Your task to perform on an android device: Go to Google maps Image 0: 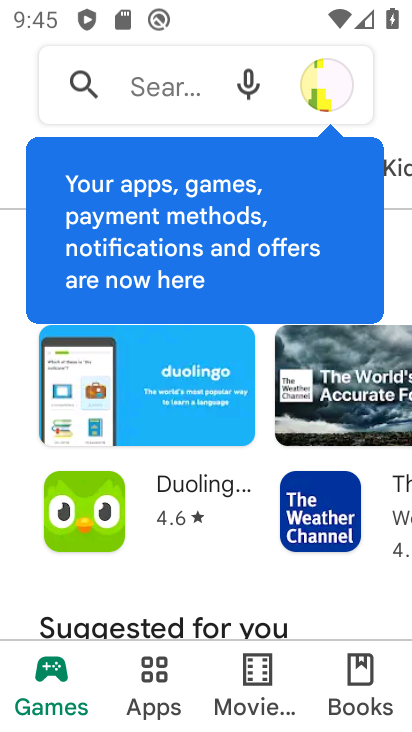
Step 0: press home button
Your task to perform on an android device: Go to Google maps Image 1: 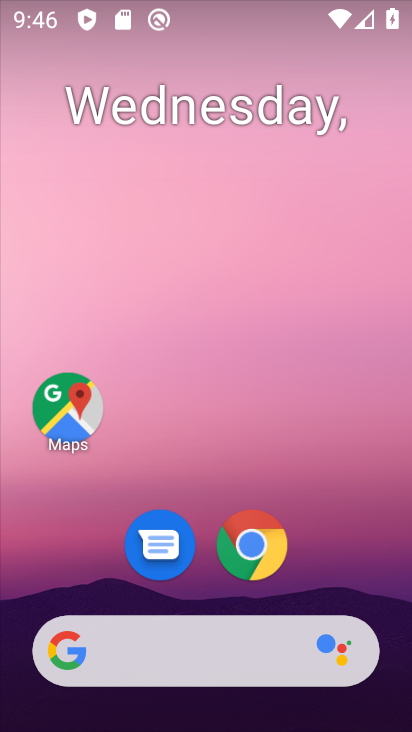
Step 1: drag from (310, 537) to (217, 8)
Your task to perform on an android device: Go to Google maps Image 2: 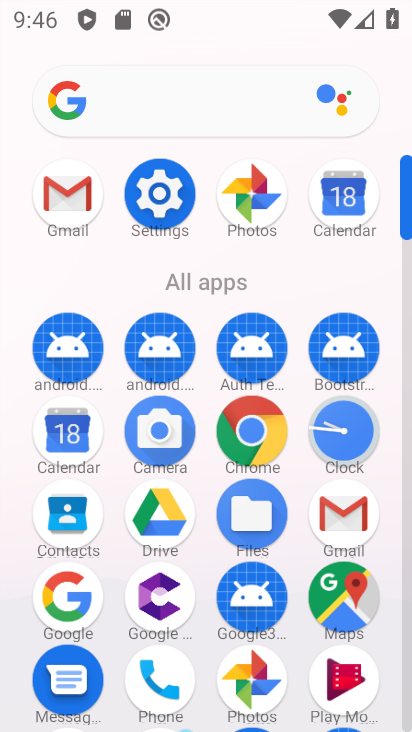
Step 2: click (345, 589)
Your task to perform on an android device: Go to Google maps Image 3: 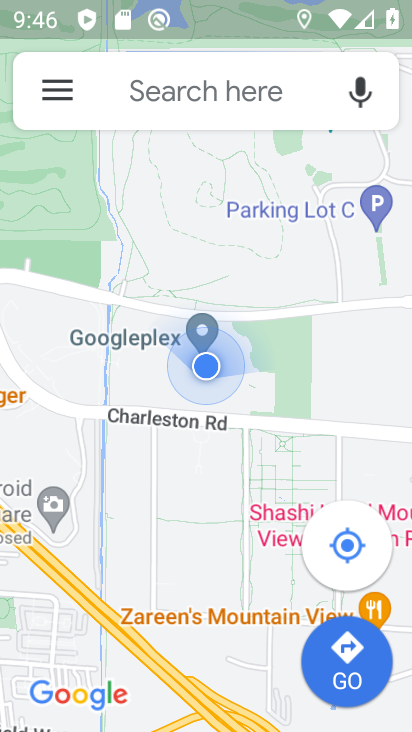
Step 3: task complete